Your task to perform on an android device: turn on wifi Image 0: 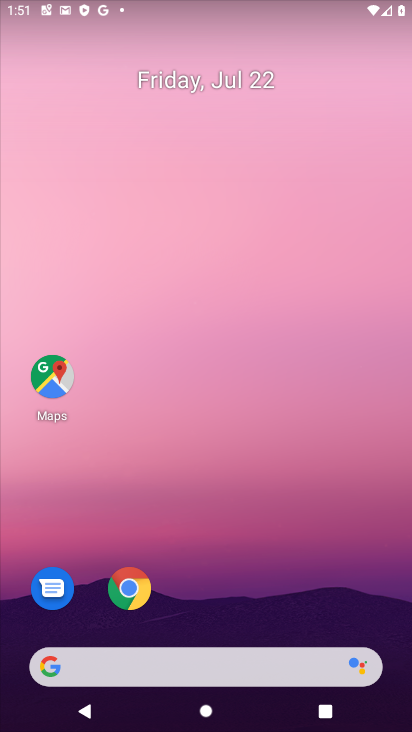
Step 0: drag from (102, 8) to (176, 558)
Your task to perform on an android device: turn on wifi Image 1: 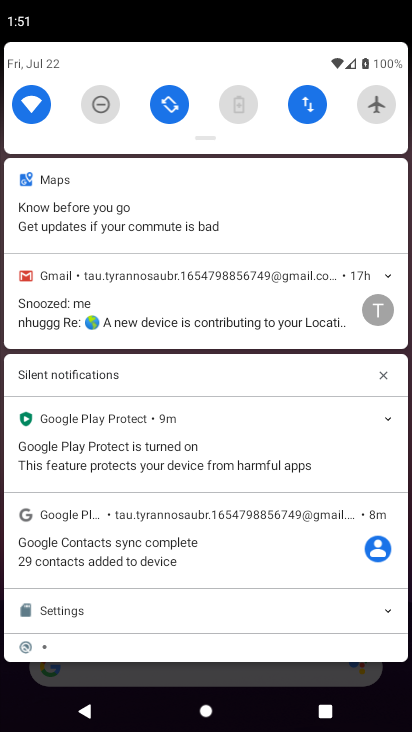
Step 1: task complete